Your task to perform on an android device: turn smart compose on in the gmail app Image 0: 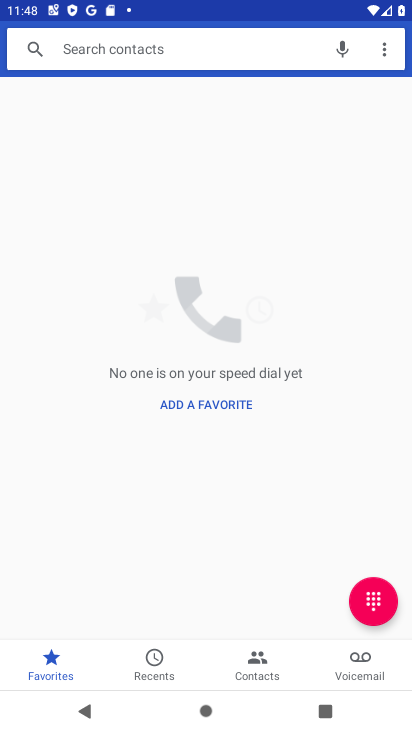
Step 0: press home button
Your task to perform on an android device: turn smart compose on in the gmail app Image 1: 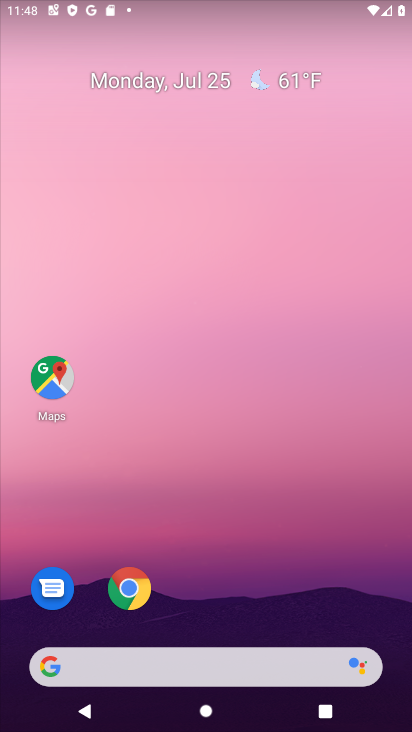
Step 1: drag from (206, 622) to (240, 96)
Your task to perform on an android device: turn smart compose on in the gmail app Image 2: 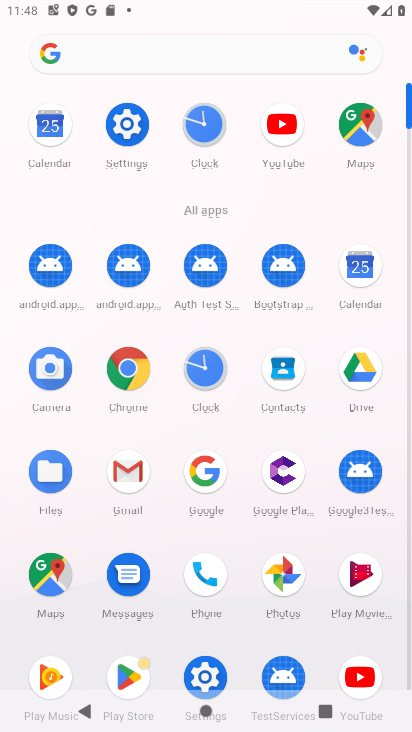
Step 2: click (127, 465)
Your task to perform on an android device: turn smart compose on in the gmail app Image 3: 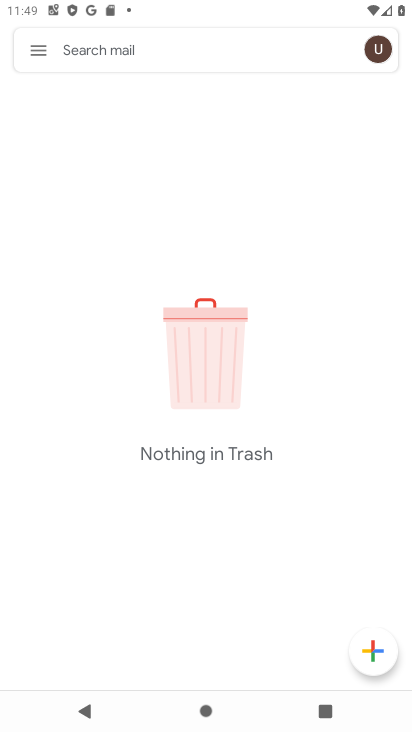
Step 3: click (40, 43)
Your task to perform on an android device: turn smart compose on in the gmail app Image 4: 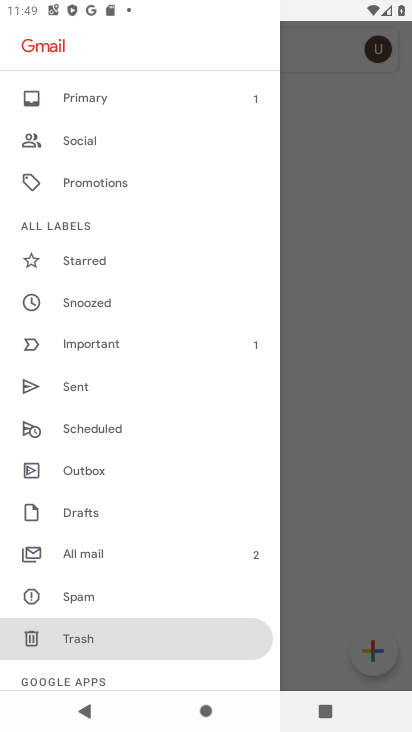
Step 4: drag from (125, 614) to (187, 68)
Your task to perform on an android device: turn smart compose on in the gmail app Image 5: 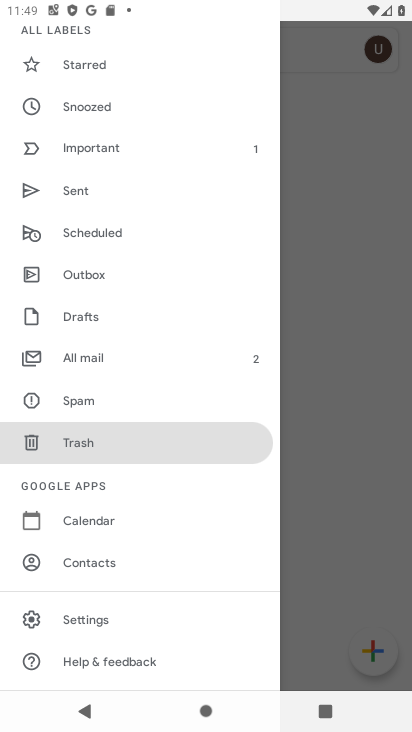
Step 5: click (115, 610)
Your task to perform on an android device: turn smart compose on in the gmail app Image 6: 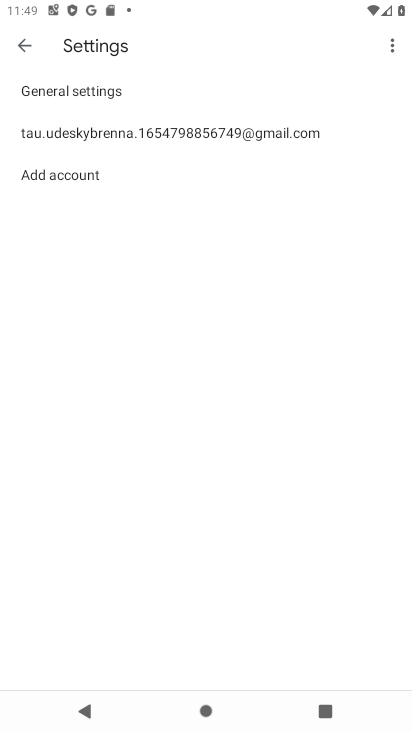
Step 6: click (99, 129)
Your task to perform on an android device: turn smart compose on in the gmail app Image 7: 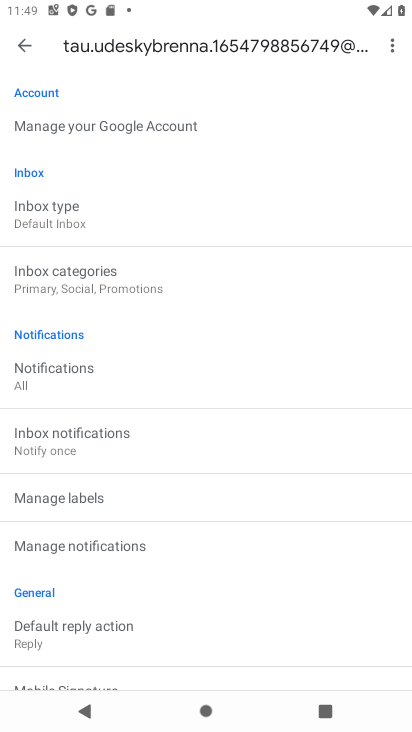
Step 7: task complete